Your task to perform on an android device: check google app version Image 0: 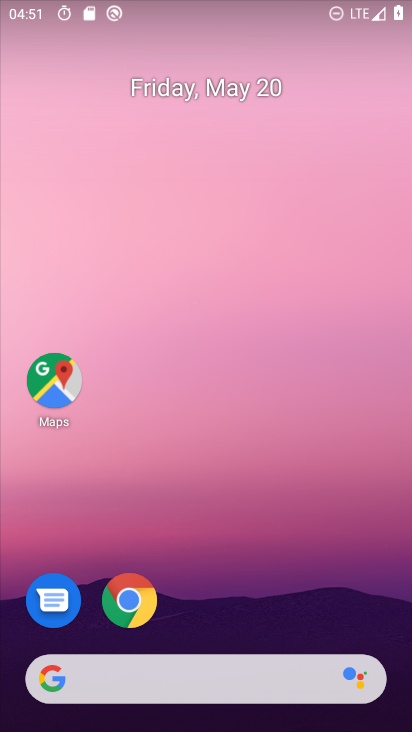
Step 0: drag from (248, 629) to (315, 68)
Your task to perform on an android device: check google app version Image 1: 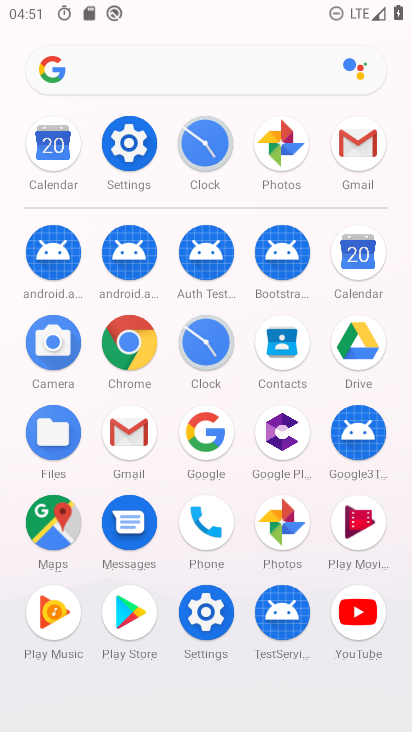
Step 1: click (205, 430)
Your task to perform on an android device: check google app version Image 2: 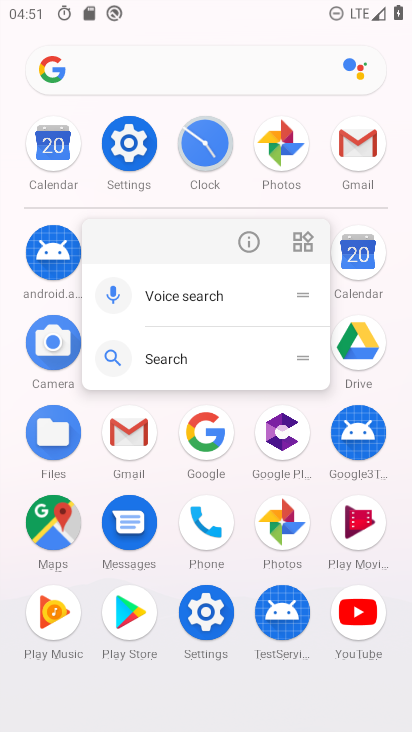
Step 2: click (252, 242)
Your task to perform on an android device: check google app version Image 3: 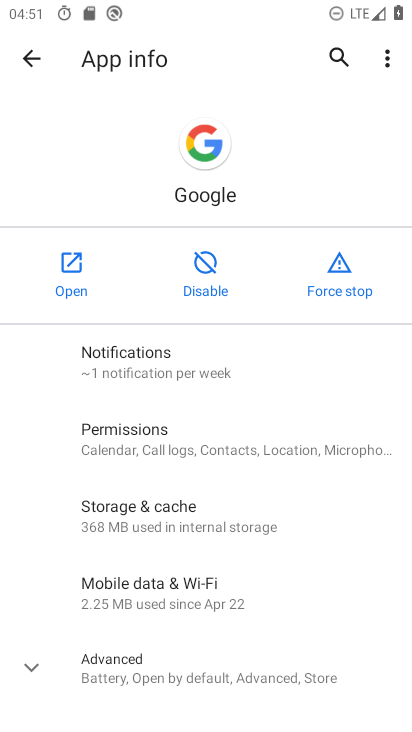
Step 3: drag from (196, 590) to (288, 57)
Your task to perform on an android device: check google app version Image 4: 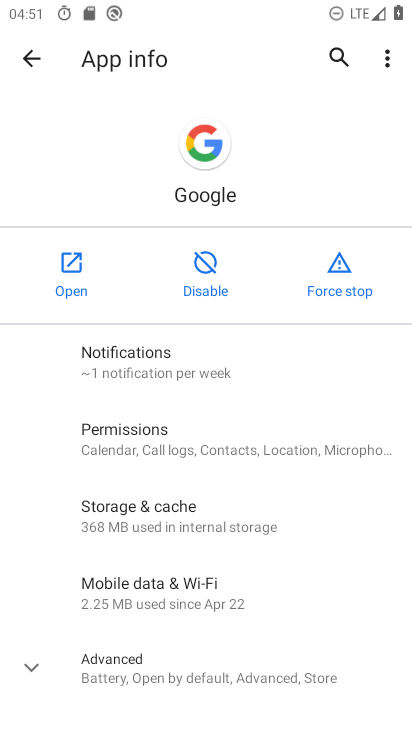
Step 4: drag from (152, 665) to (248, 91)
Your task to perform on an android device: check google app version Image 5: 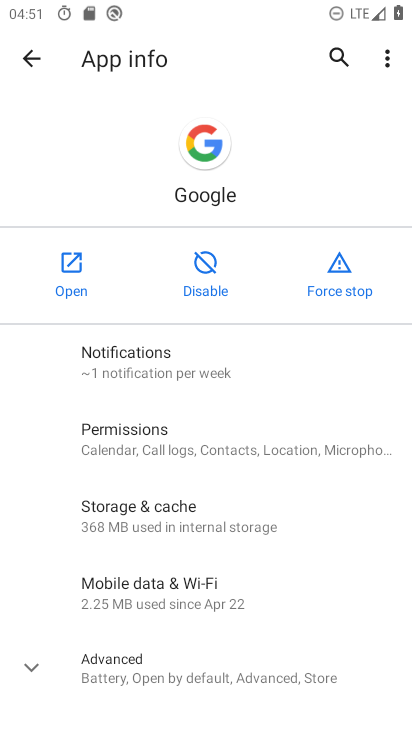
Step 5: click (159, 682)
Your task to perform on an android device: check google app version Image 6: 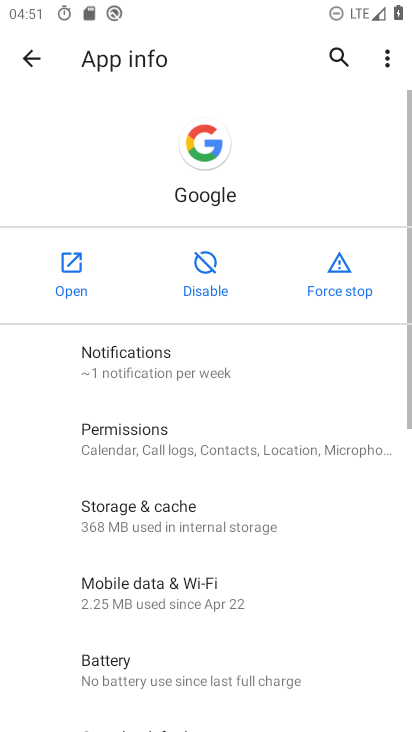
Step 6: task complete